Your task to perform on an android device: toggle notifications settings in the gmail app Image 0: 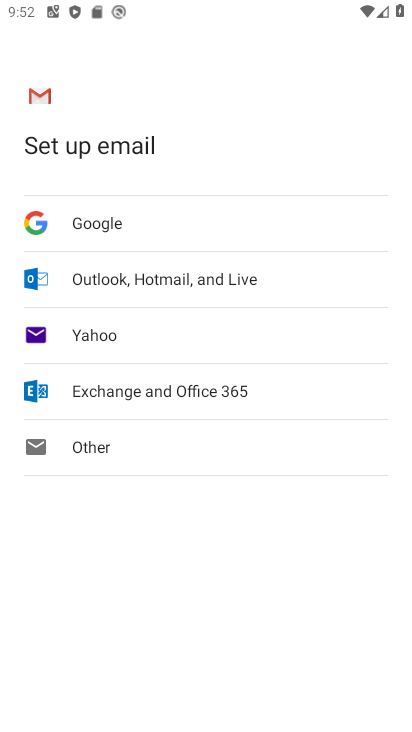
Step 0: press home button
Your task to perform on an android device: toggle notifications settings in the gmail app Image 1: 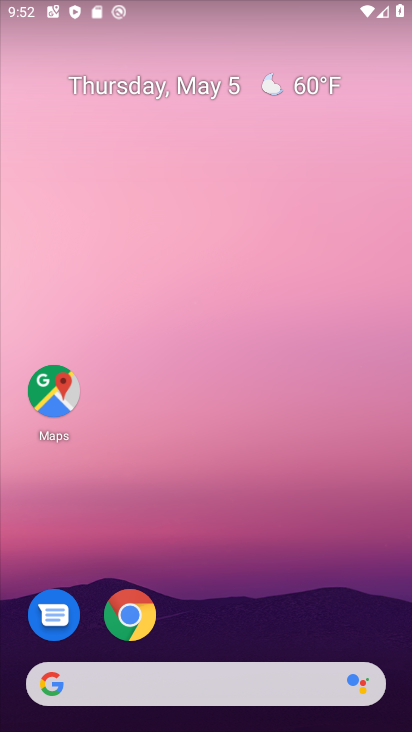
Step 1: drag from (265, 608) to (257, 100)
Your task to perform on an android device: toggle notifications settings in the gmail app Image 2: 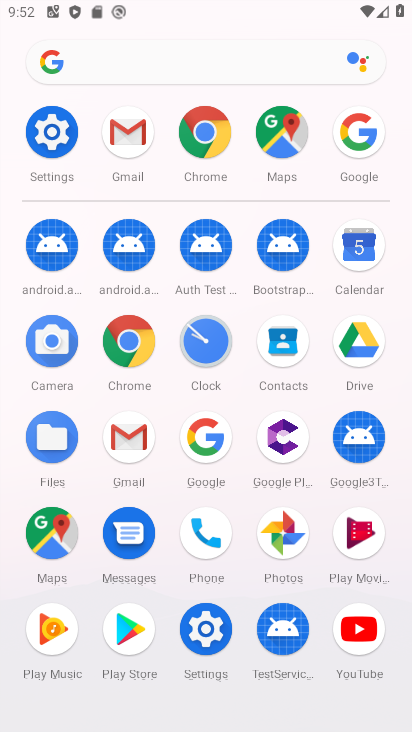
Step 2: click (134, 136)
Your task to perform on an android device: toggle notifications settings in the gmail app Image 3: 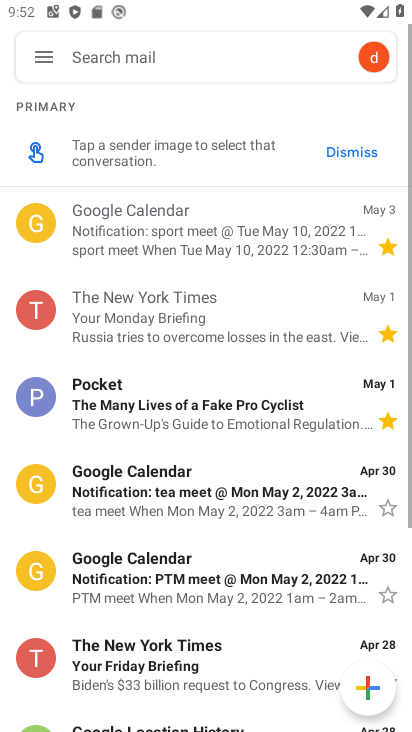
Step 3: click (45, 61)
Your task to perform on an android device: toggle notifications settings in the gmail app Image 4: 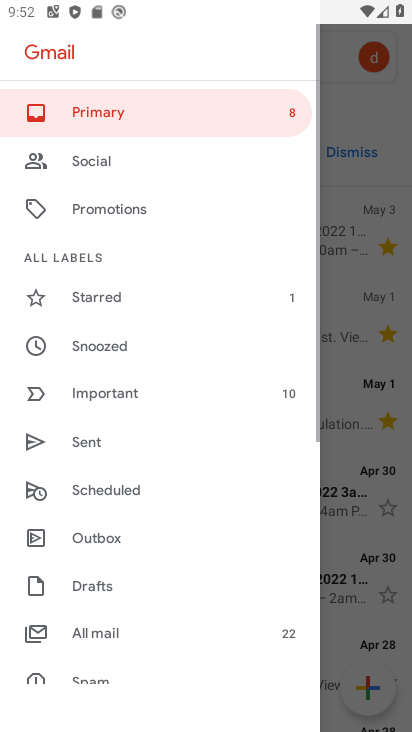
Step 4: drag from (218, 531) to (189, 208)
Your task to perform on an android device: toggle notifications settings in the gmail app Image 5: 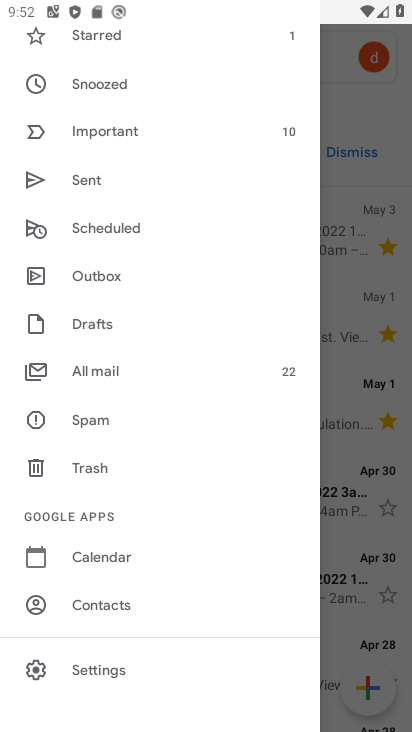
Step 5: drag from (171, 644) to (167, 318)
Your task to perform on an android device: toggle notifications settings in the gmail app Image 6: 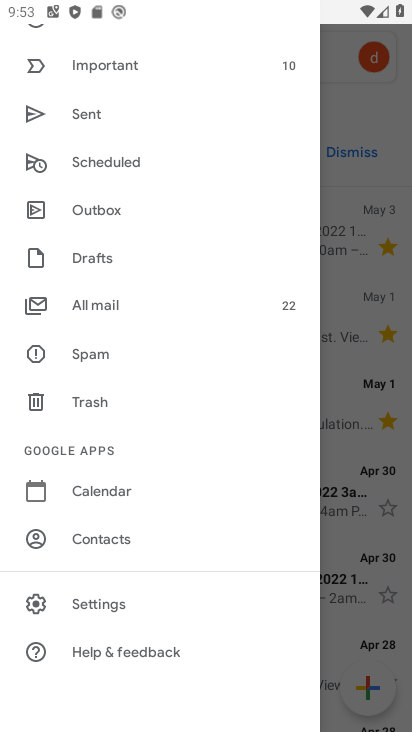
Step 6: click (120, 606)
Your task to perform on an android device: toggle notifications settings in the gmail app Image 7: 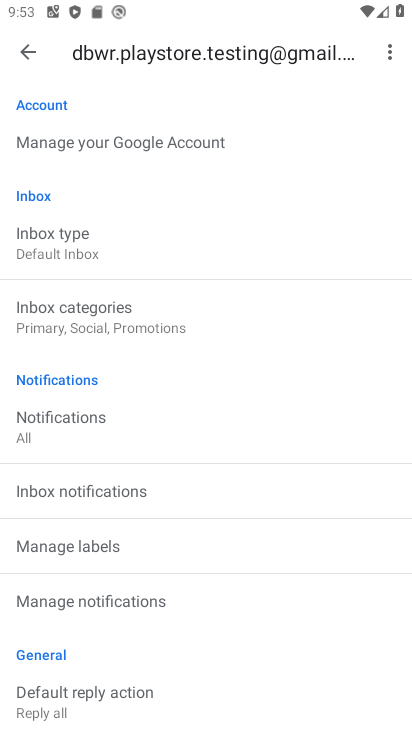
Step 7: drag from (225, 619) to (217, 404)
Your task to perform on an android device: toggle notifications settings in the gmail app Image 8: 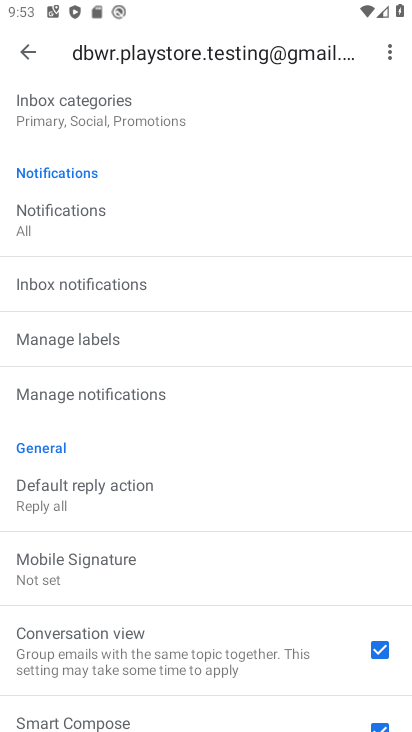
Step 8: click (118, 232)
Your task to perform on an android device: toggle notifications settings in the gmail app Image 9: 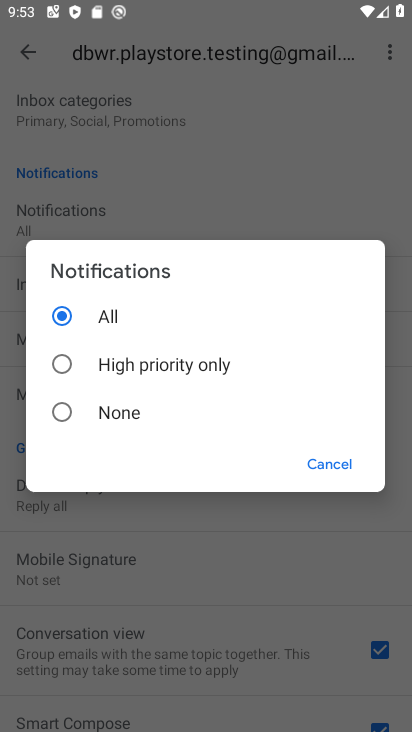
Step 9: click (57, 411)
Your task to perform on an android device: toggle notifications settings in the gmail app Image 10: 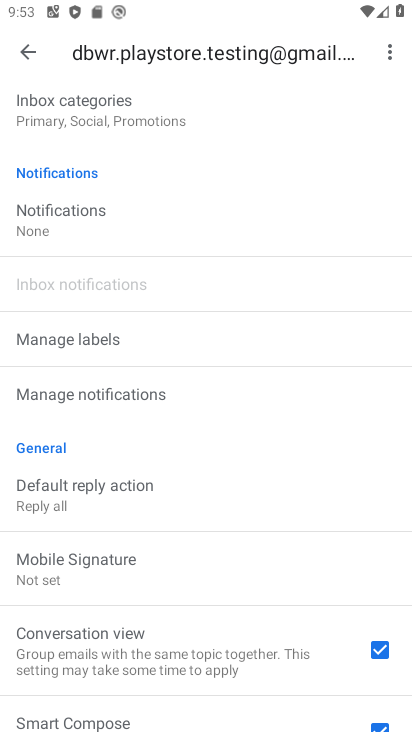
Step 10: task complete